Your task to perform on an android device: check battery use Image 0: 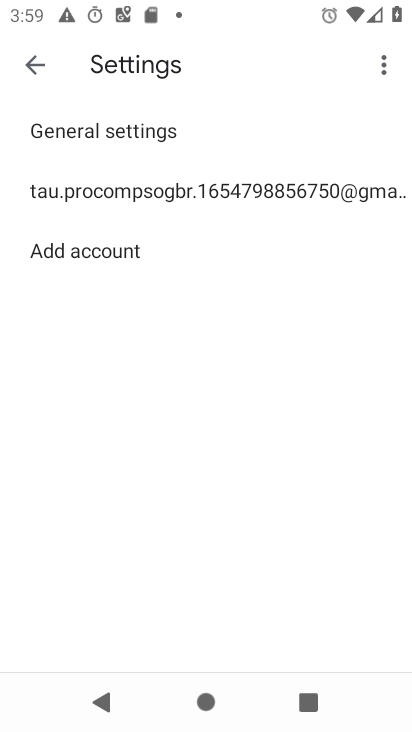
Step 0: press home button
Your task to perform on an android device: check battery use Image 1: 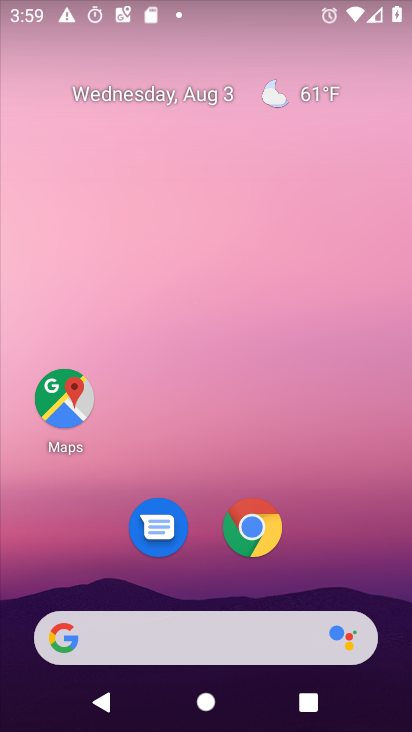
Step 1: drag from (349, 567) to (267, 80)
Your task to perform on an android device: check battery use Image 2: 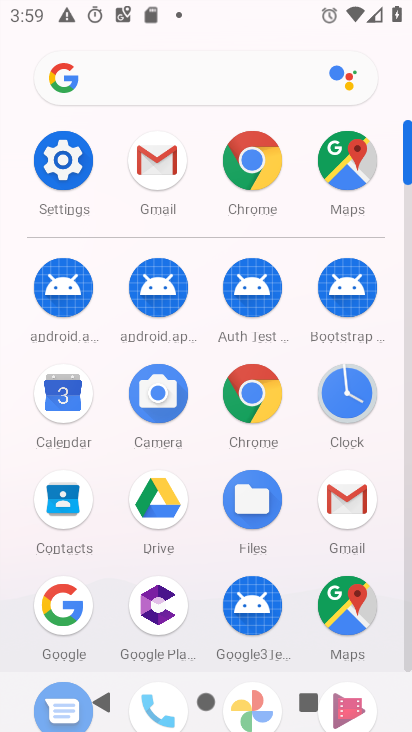
Step 2: click (54, 154)
Your task to perform on an android device: check battery use Image 3: 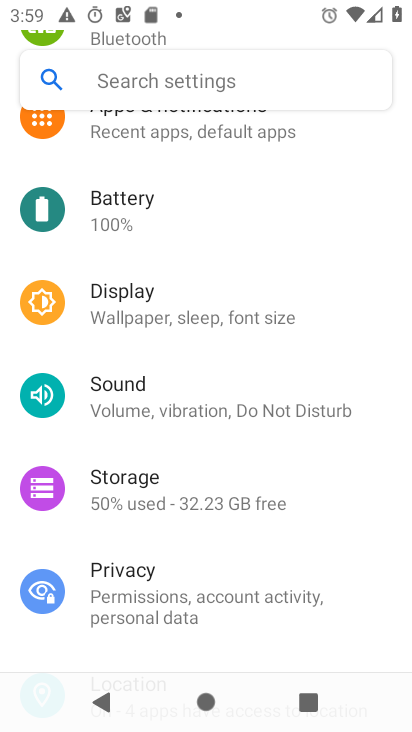
Step 3: drag from (261, 192) to (244, 639)
Your task to perform on an android device: check battery use Image 4: 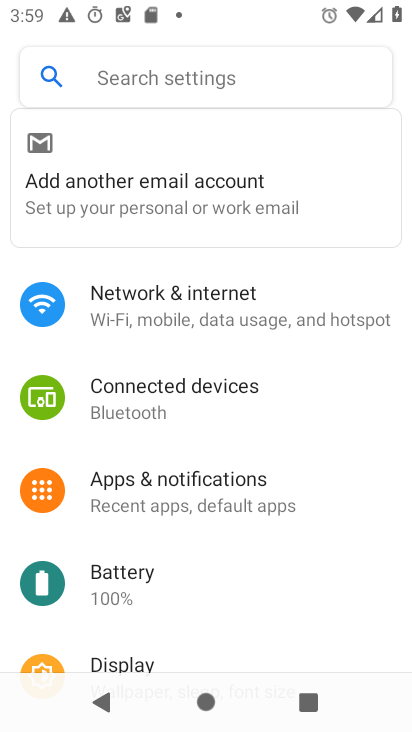
Step 4: drag from (283, 587) to (306, 151)
Your task to perform on an android device: check battery use Image 5: 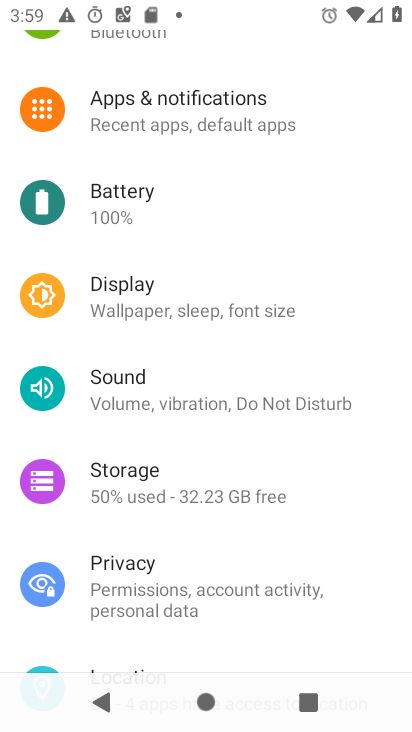
Step 5: drag from (336, 535) to (325, 109)
Your task to perform on an android device: check battery use Image 6: 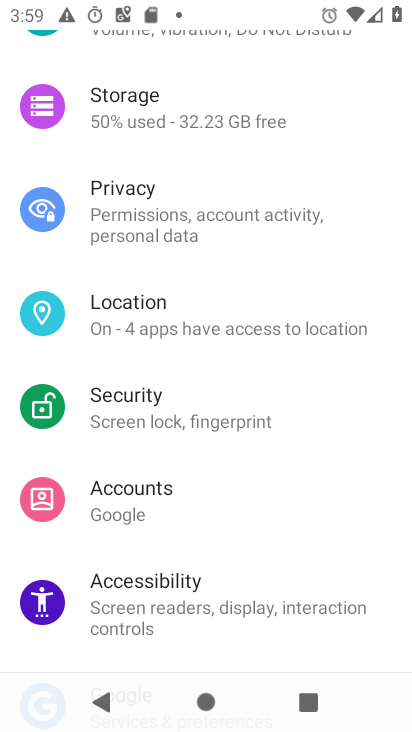
Step 6: click (274, 486)
Your task to perform on an android device: check battery use Image 7: 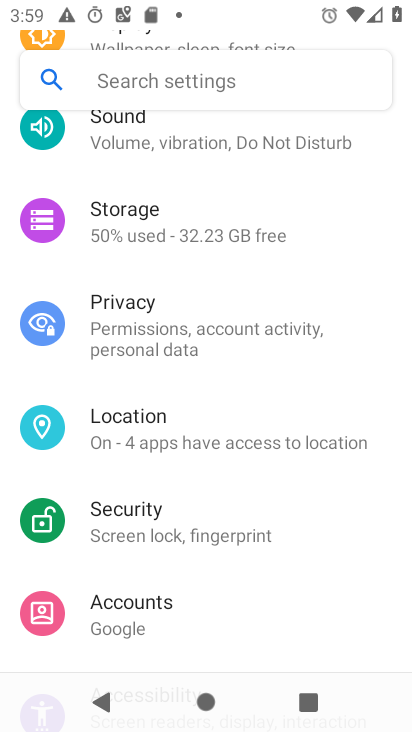
Step 7: drag from (293, 180) to (267, 563)
Your task to perform on an android device: check battery use Image 8: 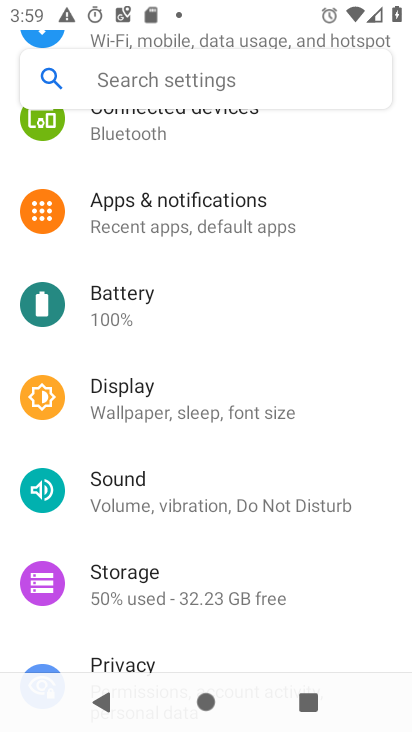
Step 8: click (133, 319)
Your task to perform on an android device: check battery use Image 9: 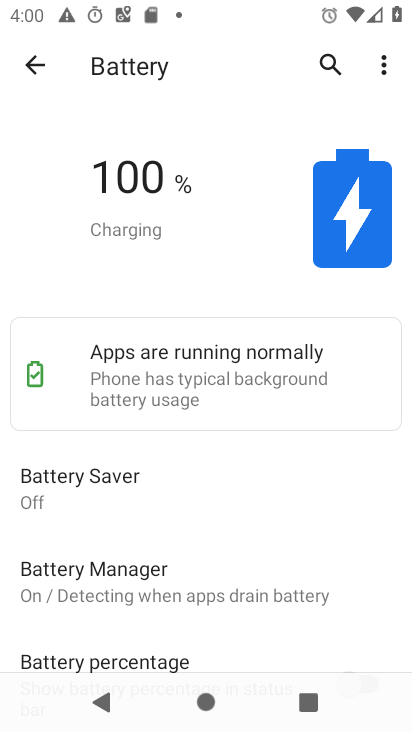
Step 9: click (386, 57)
Your task to perform on an android device: check battery use Image 10: 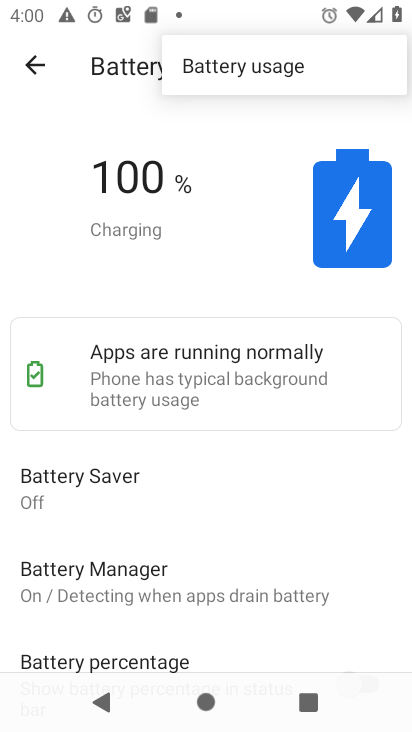
Step 10: click (259, 58)
Your task to perform on an android device: check battery use Image 11: 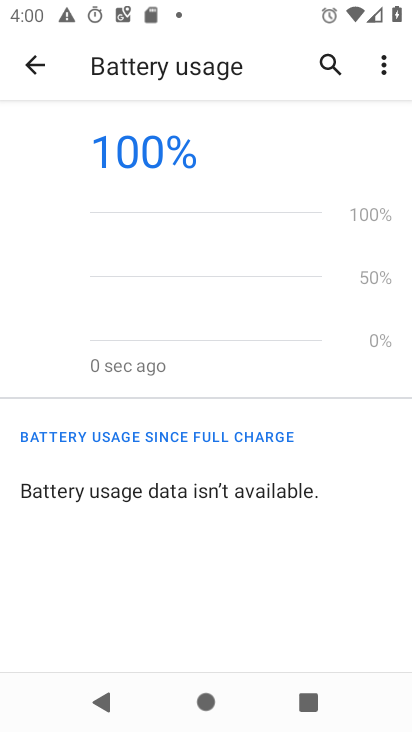
Step 11: task complete